Your task to perform on an android device: all mails in gmail Image 0: 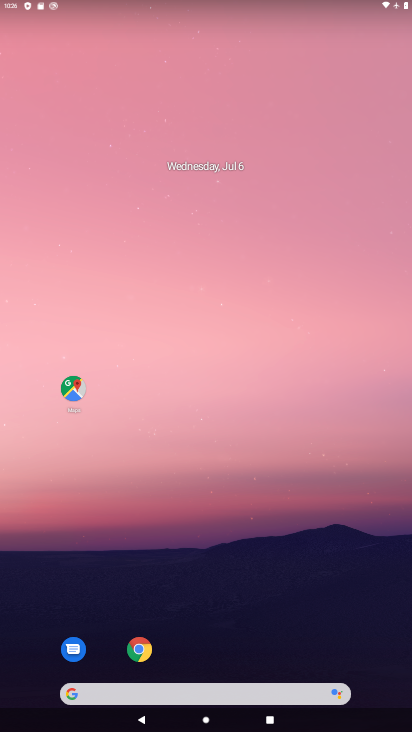
Step 0: drag from (375, 714) to (379, 242)
Your task to perform on an android device: all mails in gmail Image 1: 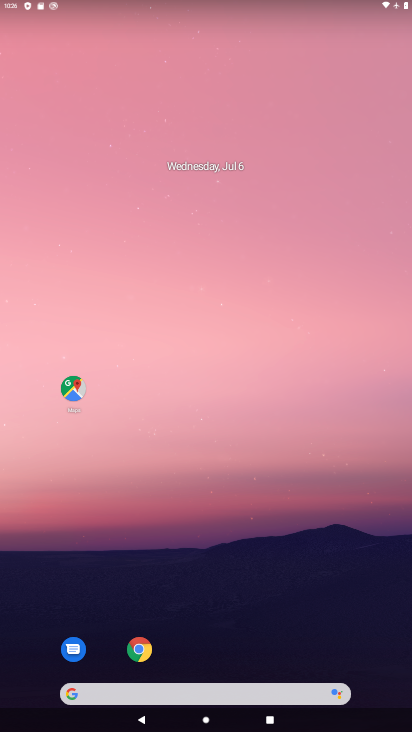
Step 1: drag from (392, 717) to (350, 87)
Your task to perform on an android device: all mails in gmail Image 2: 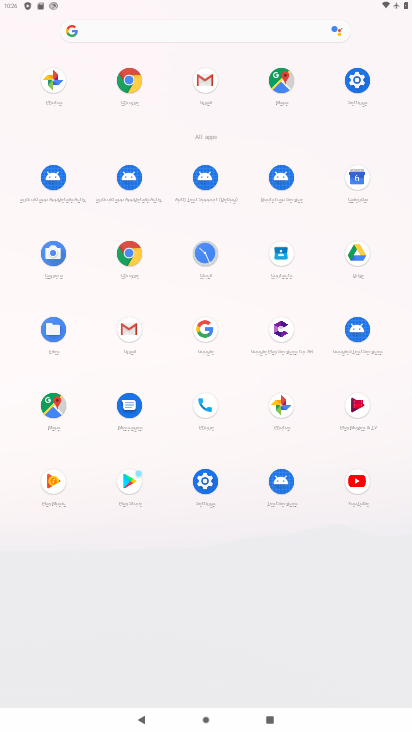
Step 2: click (206, 65)
Your task to perform on an android device: all mails in gmail Image 3: 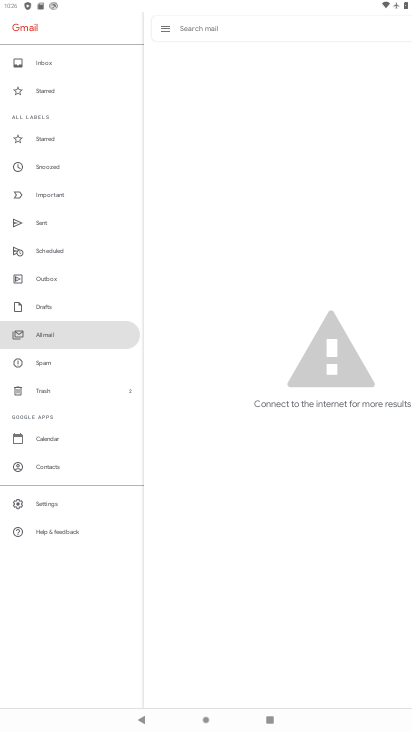
Step 3: click (39, 329)
Your task to perform on an android device: all mails in gmail Image 4: 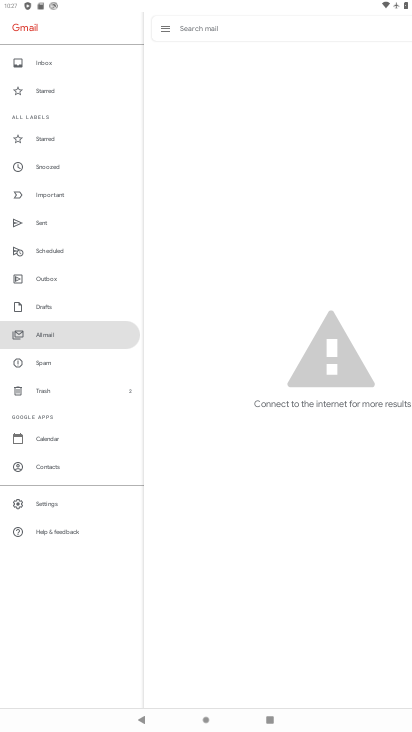
Step 4: click (28, 57)
Your task to perform on an android device: all mails in gmail Image 5: 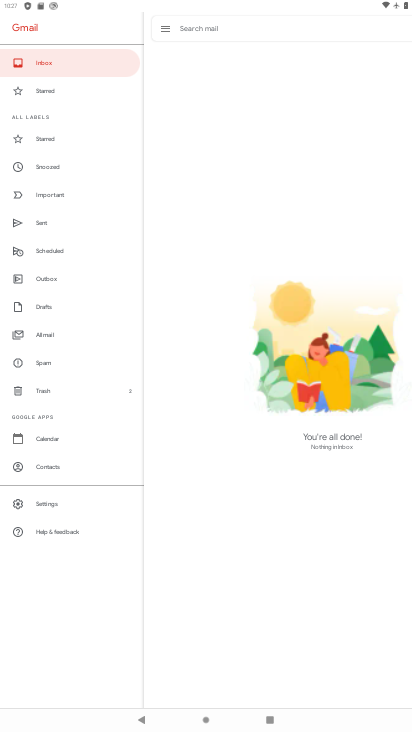
Step 5: click (40, 327)
Your task to perform on an android device: all mails in gmail Image 6: 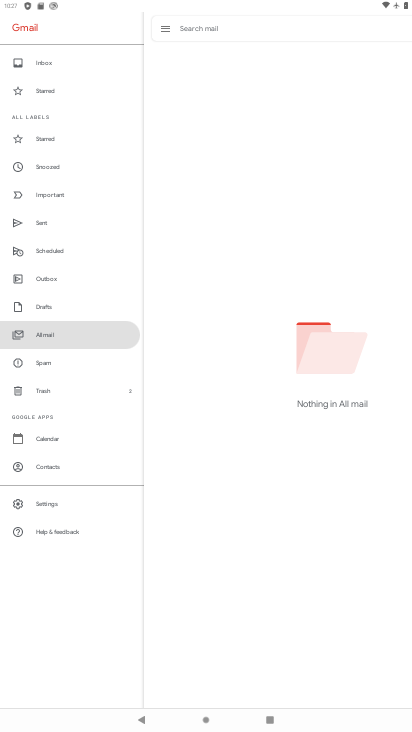
Step 6: task complete